Your task to perform on an android device: Search for vegetarian restaurants on Maps Image 0: 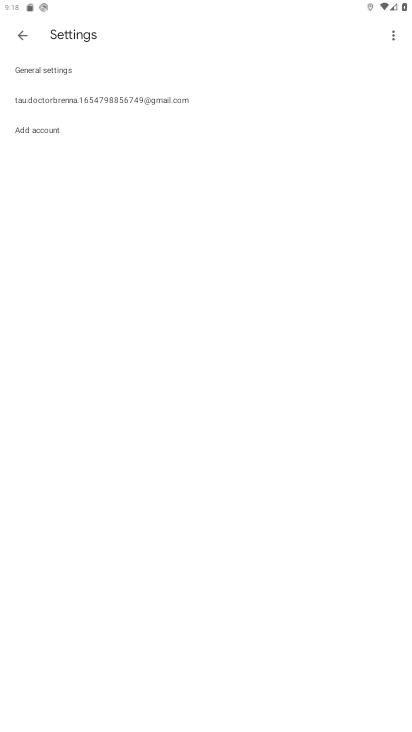
Step 0: press home button
Your task to perform on an android device: Search for vegetarian restaurants on Maps Image 1: 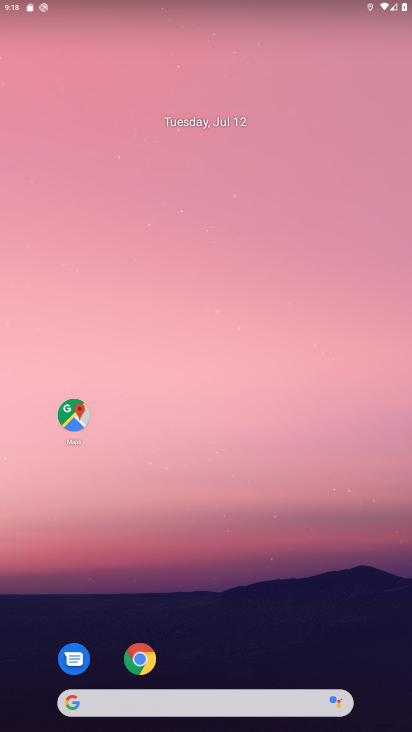
Step 1: drag from (310, 612) to (300, 144)
Your task to perform on an android device: Search for vegetarian restaurants on Maps Image 2: 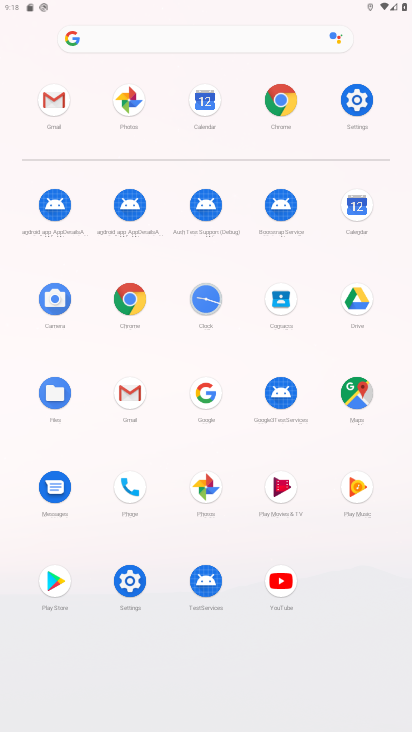
Step 2: click (366, 384)
Your task to perform on an android device: Search for vegetarian restaurants on Maps Image 3: 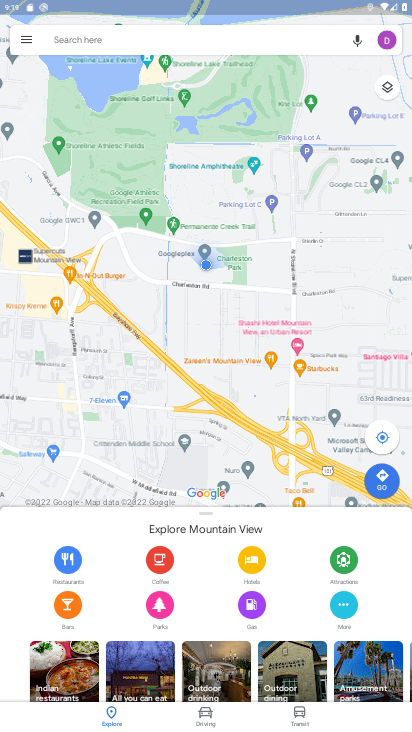
Step 3: click (59, 35)
Your task to perform on an android device: Search for vegetarian restaurants on Maps Image 4: 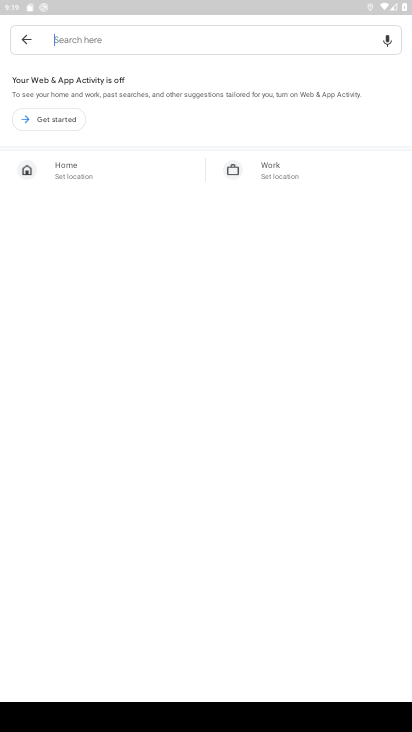
Step 4: type "vegetarian restaurants"
Your task to perform on an android device: Search for vegetarian restaurants on Maps Image 5: 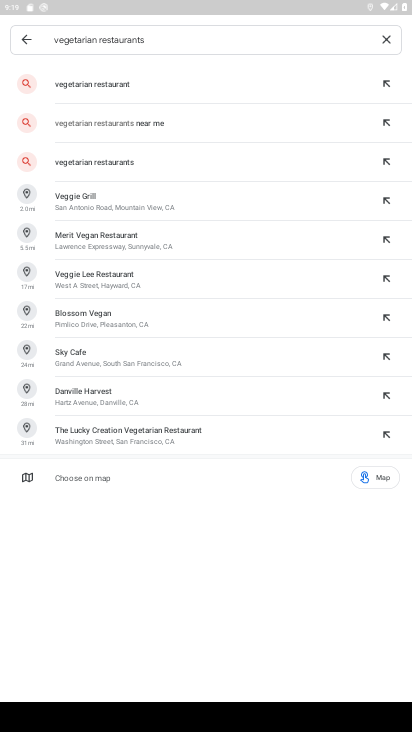
Step 5: click (75, 76)
Your task to perform on an android device: Search for vegetarian restaurants on Maps Image 6: 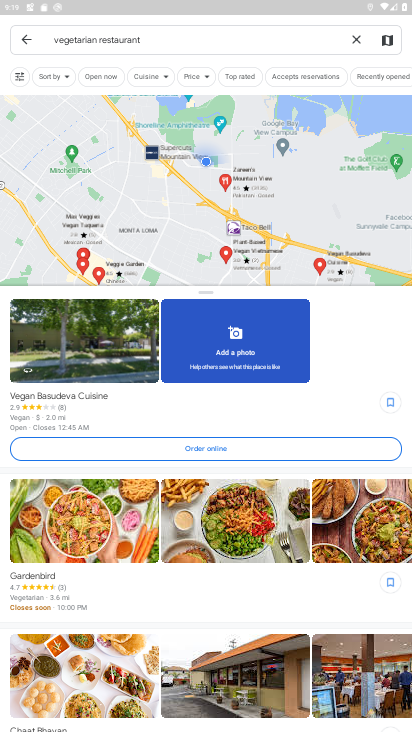
Step 6: task complete